Your task to perform on an android device: turn on location history Image 0: 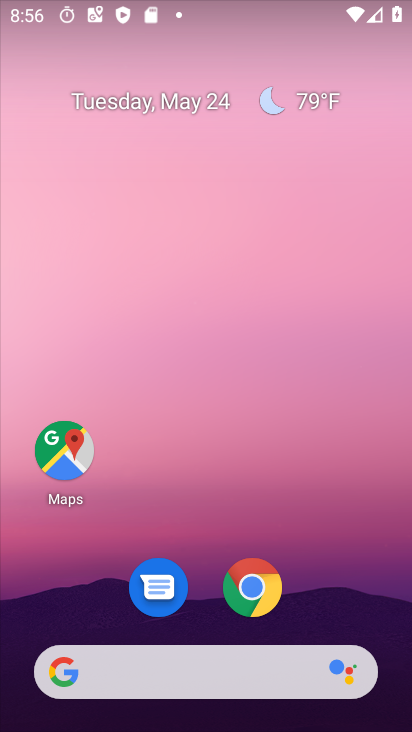
Step 0: drag from (351, 598) to (284, 149)
Your task to perform on an android device: turn on location history Image 1: 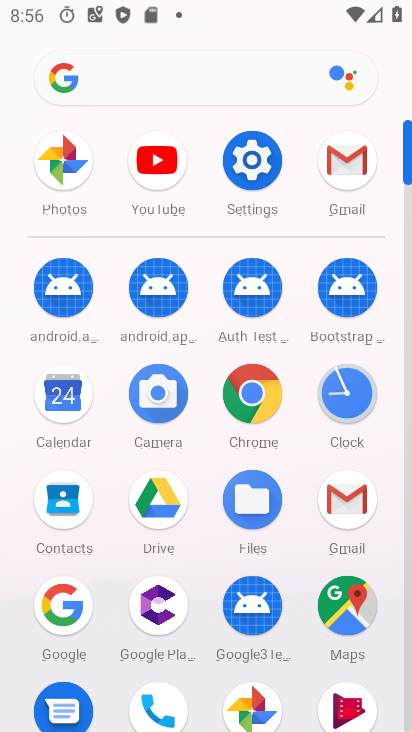
Step 1: click (254, 161)
Your task to perform on an android device: turn on location history Image 2: 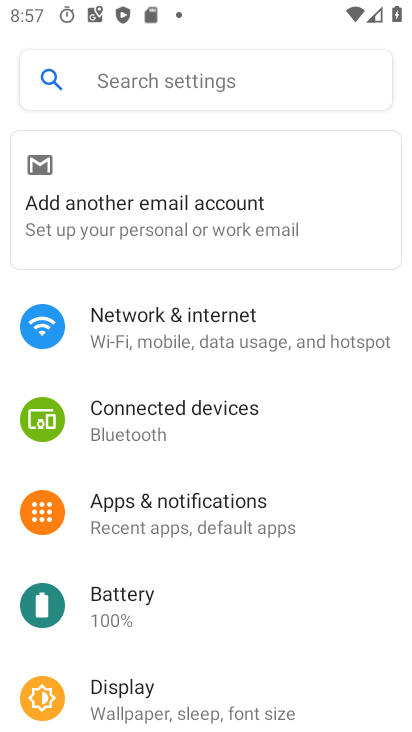
Step 2: drag from (186, 551) to (227, 442)
Your task to perform on an android device: turn on location history Image 3: 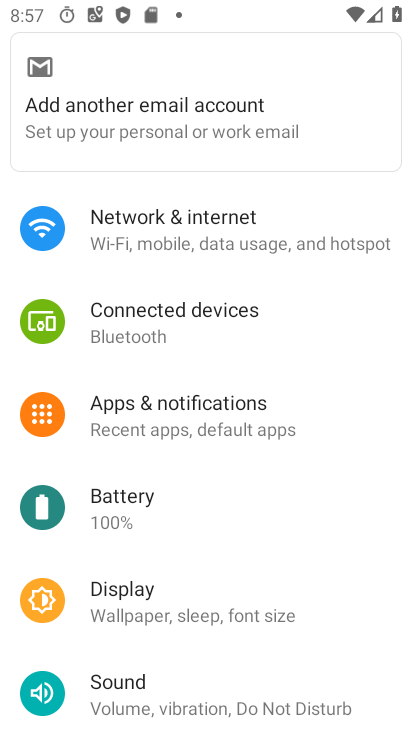
Step 3: drag from (200, 519) to (246, 411)
Your task to perform on an android device: turn on location history Image 4: 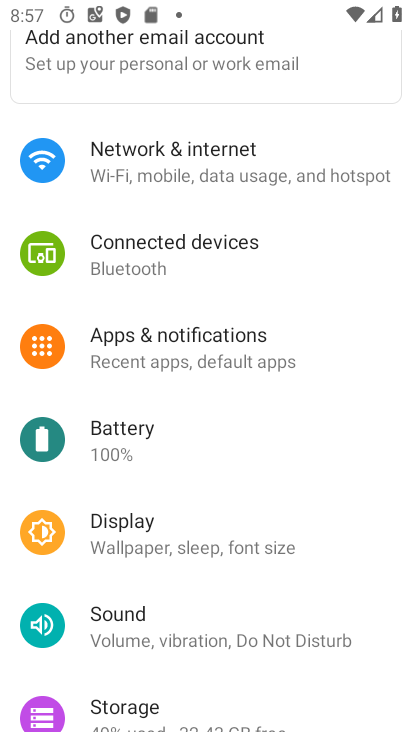
Step 4: drag from (192, 493) to (245, 399)
Your task to perform on an android device: turn on location history Image 5: 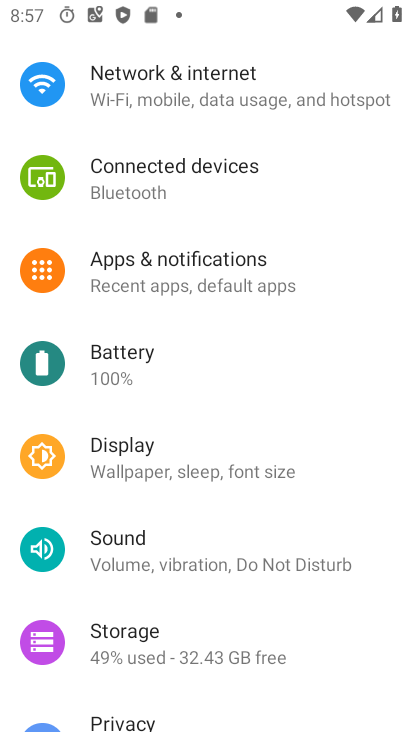
Step 5: drag from (205, 422) to (249, 324)
Your task to perform on an android device: turn on location history Image 6: 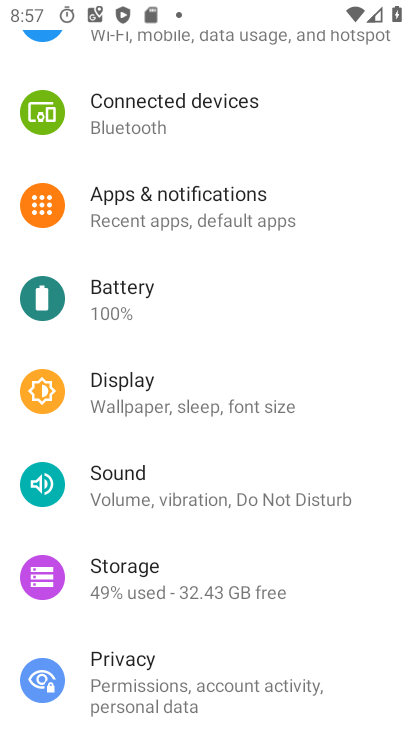
Step 6: drag from (197, 451) to (233, 353)
Your task to perform on an android device: turn on location history Image 7: 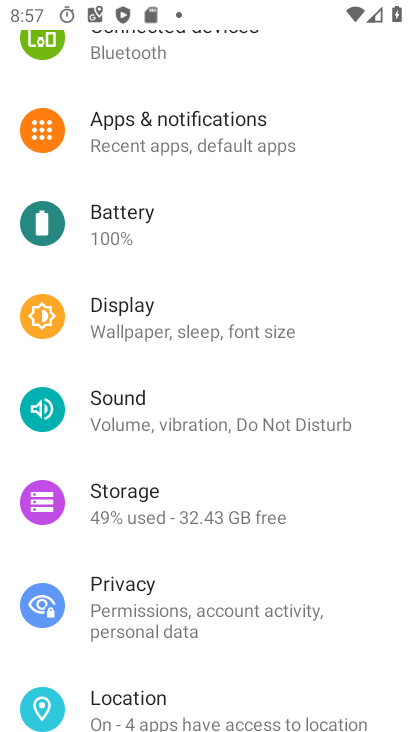
Step 7: drag from (201, 472) to (282, 353)
Your task to perform on an android device: turn on location history Image 8: 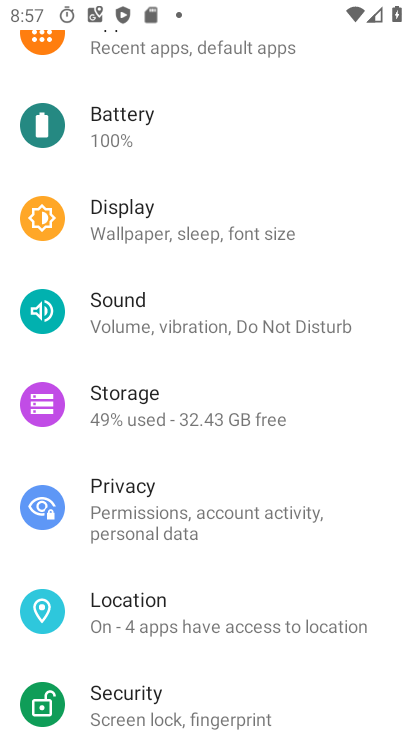
Step 8: click (155, 617)
Your task to perform on an android device: turn on location history Image 9: 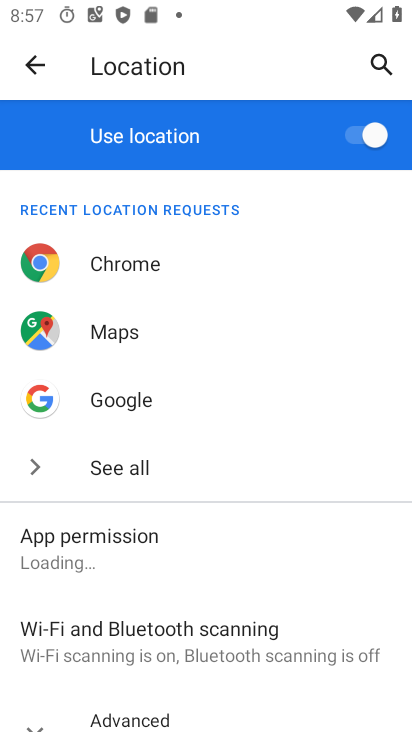
Step 9: drag from (181, 561) to (224, 435)
Your task to perform on an android device: turn on location history Image 10: 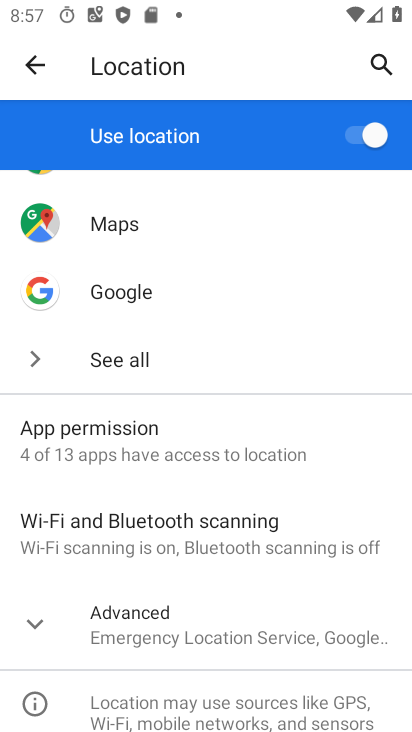
Step 10: drag from (171, 581) to (234, 471)
Your task to perform on an android device: turn on location history Image 11: 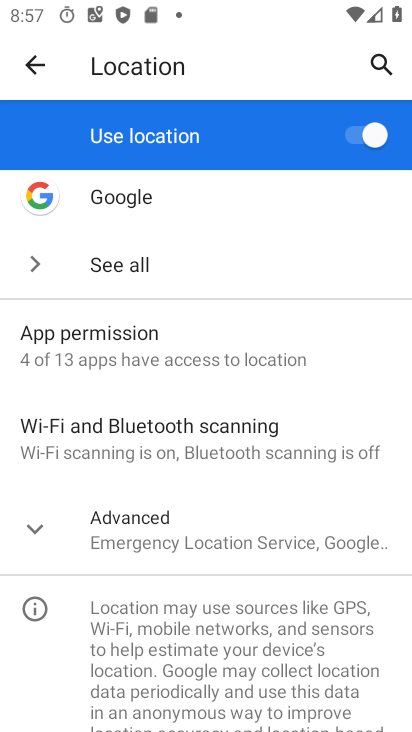
Step 11: click (228, 550)
Your task to perform on an android device: turn on location history Image 12: 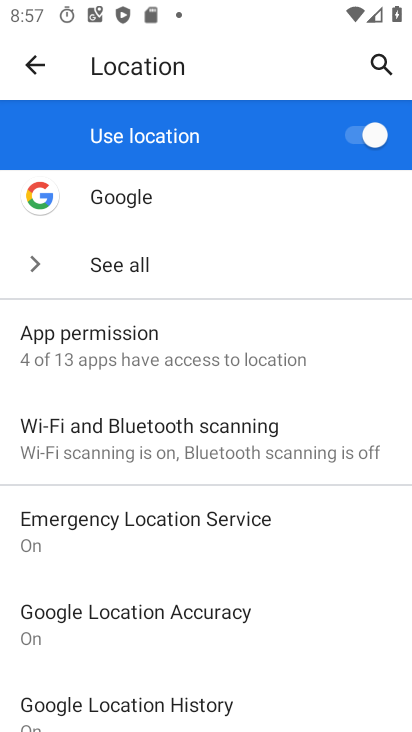
Step 12: task complete